Your task to perform on an android device: Play the last video I watched on Youtube Image 0: 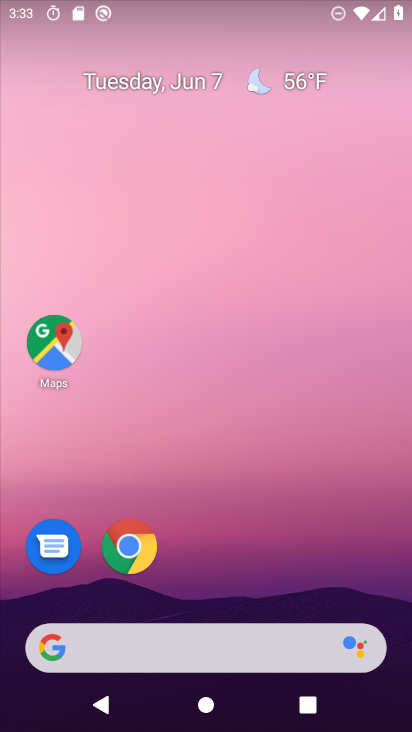
Step 0: drag from (275, 521) to (182, 45)
Your task to perform on an android device: Play the last video I watched on Youtube Image 1: 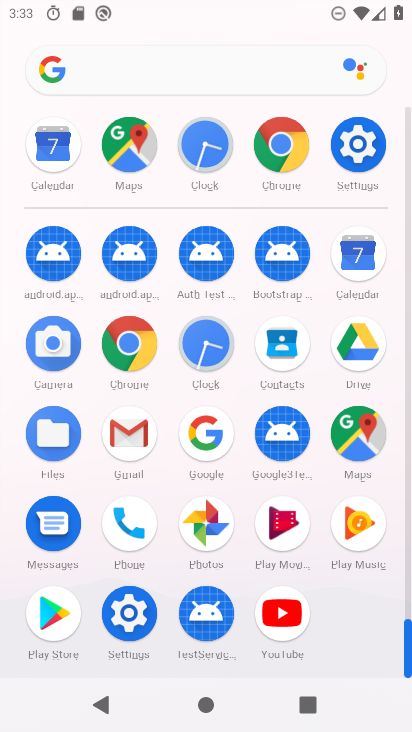
Step 1: drag from (16, 558) to (18, 235)
Your task to perform on an android device: Play the last video I watched on Youtube Image 2: 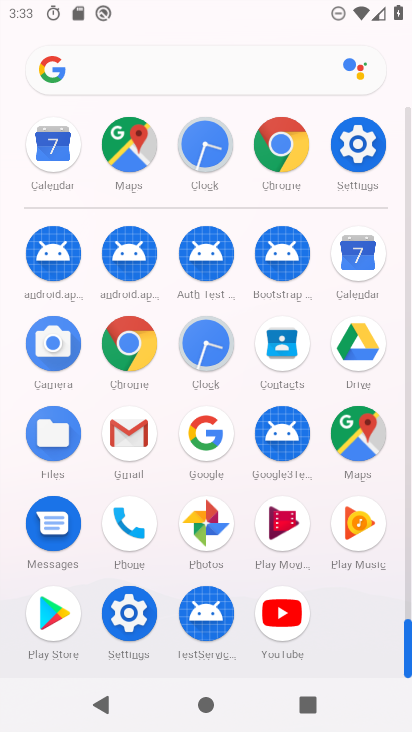
Step 2: click (279, 610)
Your task to perform on an android device: Play the last video I watched on Youtube Image 3: 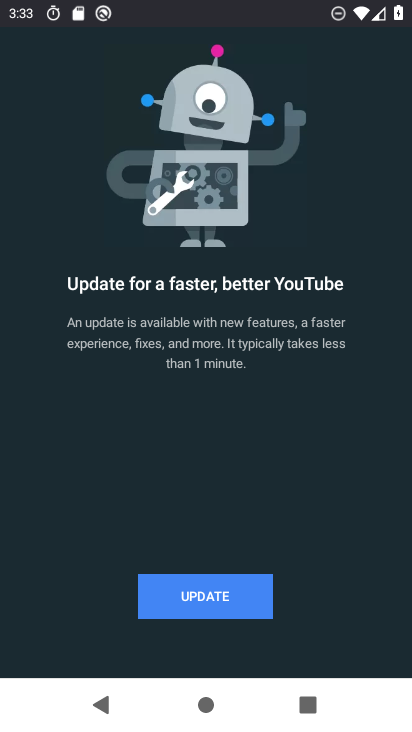
Step 3: click (220, 587)
Your task to perform on an android device: Play the last video I watched on Youtube Image 4: 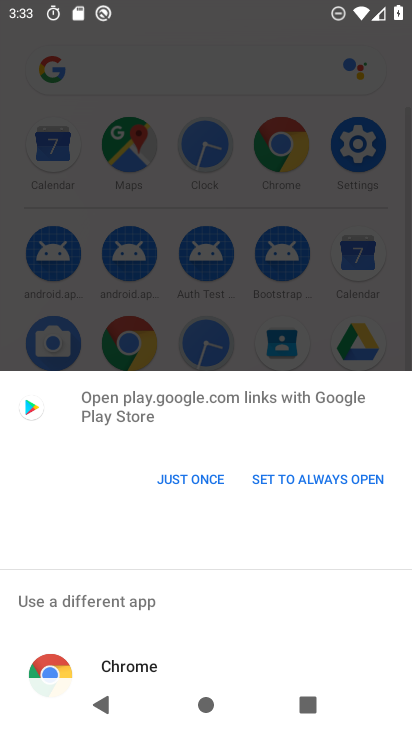
Step 4: click (198, 475)
Your task to perform on an android device: Play the last video I watched on Youtube Image 5: 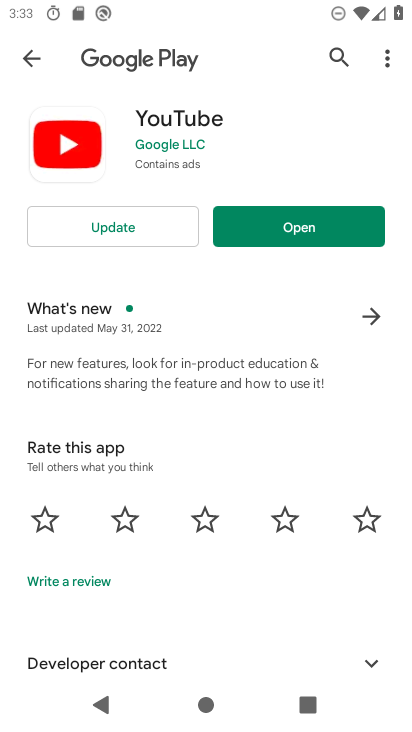
Step 5: click (73, 218)
Your task to perform on an android device: Play the last video I watched on Youtube Image 6: 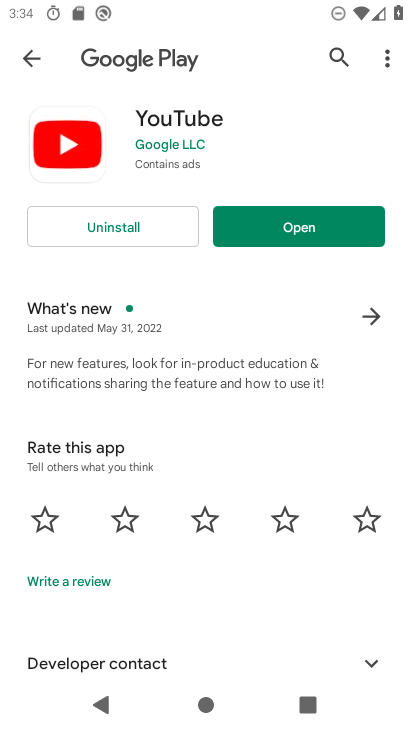
Step 6: click (339, 235)
Your task to perform on an android device: Play the last video I watched on Youtube Image 7: 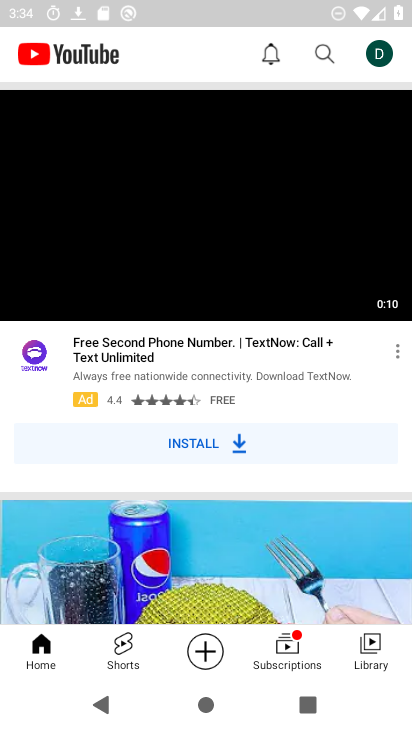
Step 7: click (385, 650)
Your task to perform on an android device: Play the last video I watched on Youtube Image 8: 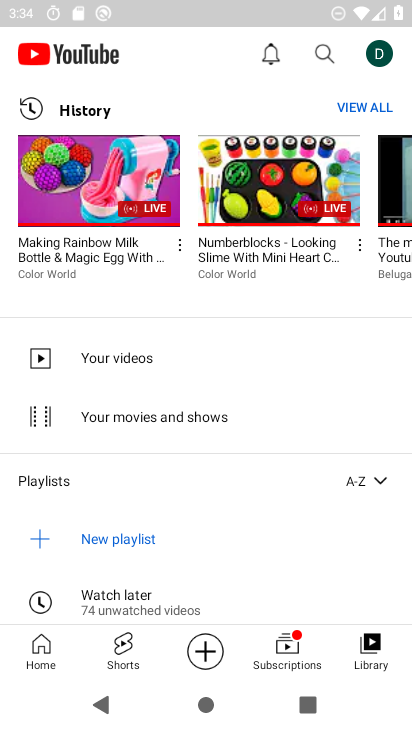
Step 8: click (70, 183)
Your task to perform on an android device: Play the last video I watched on Youtube Image 9: 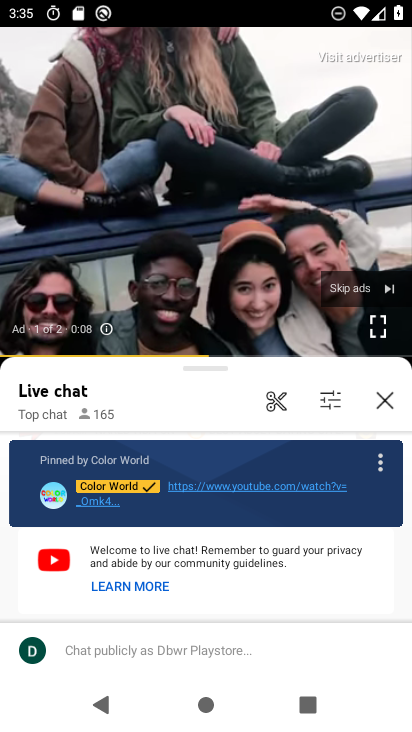
Step 9: task complete